Your task to perform on an android device: Find coffee shops on Maps Image 0: 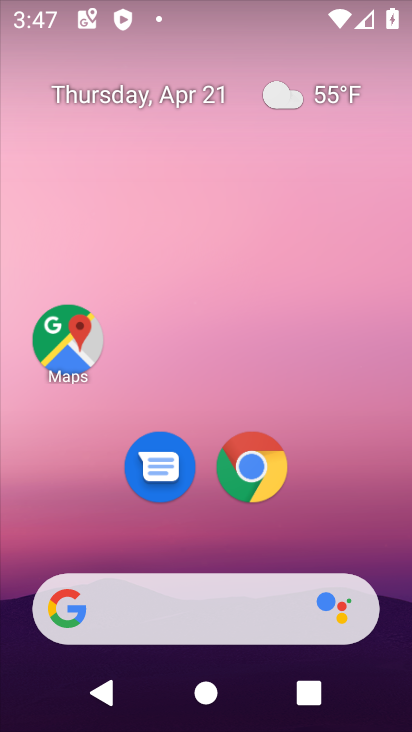
Step 0: press home button
Your task to perform on an android device: Find coffee shops on Maps Image 1: 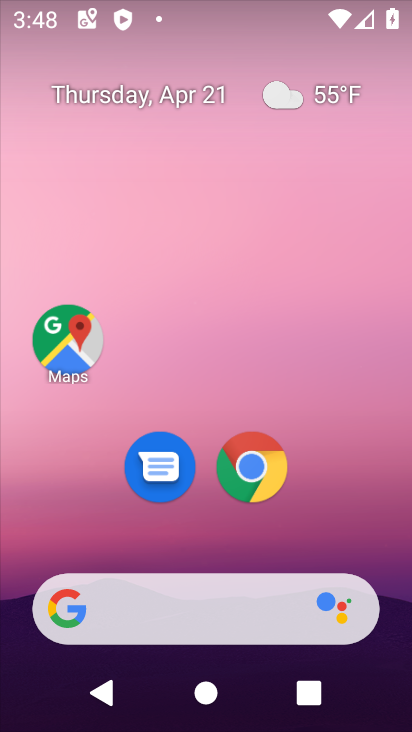
Step 1: drag from (235, 643) to (243, 233)
Your task to perform on an android device: Find coffee shops on Maps Image 2: 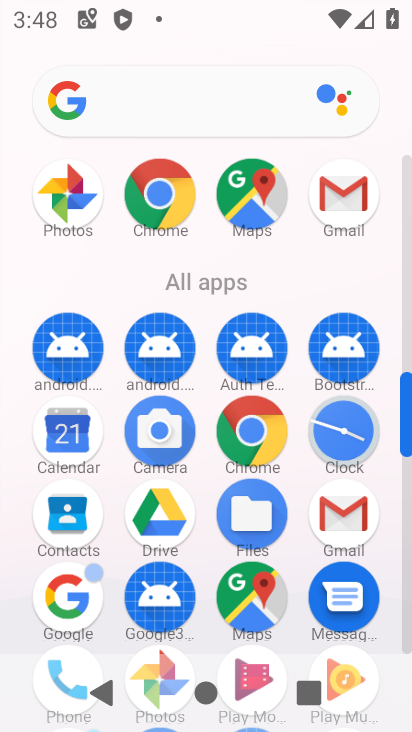
Step 2: click (259, 594)
Your task to perform on an android device: Find coffee shops on Maps Image 3: 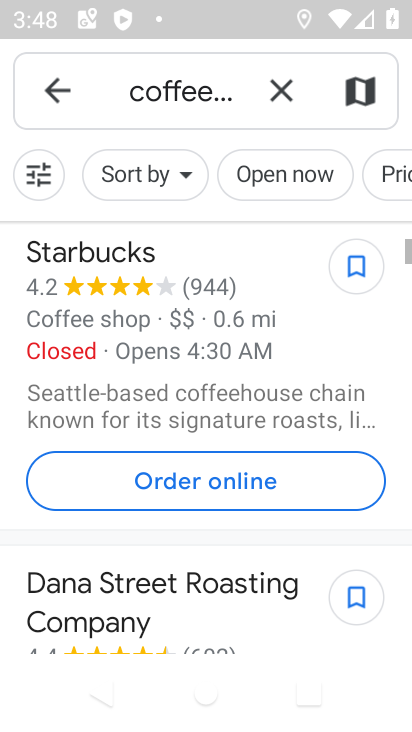
Step 3: task complete